Your task to perform on an android device: open sync settings in chrome Image 0: 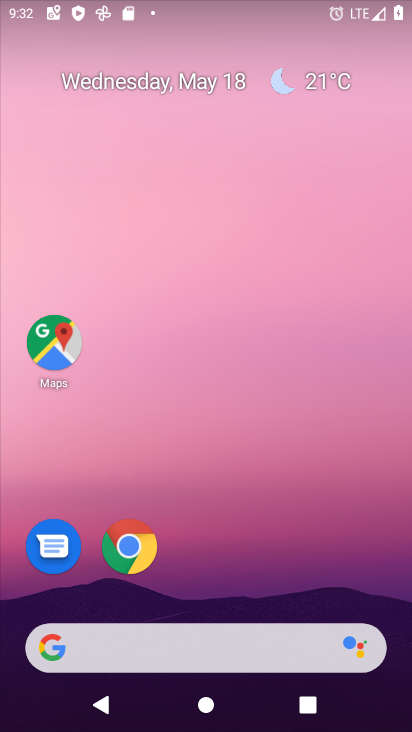
Step 0: drag from (385, 624) to (303, 35)
Your task to perform on an android device: open sync settings in chrome Image 1: 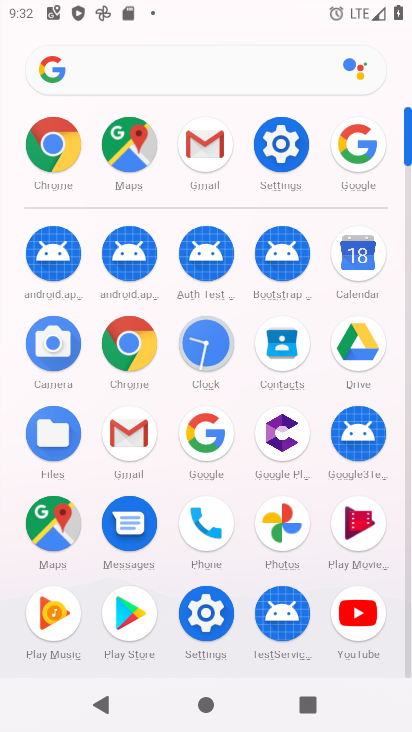
Step 1: click (39, 142)
Your task to perform on an android device: open sync settings in chrome Image 2: 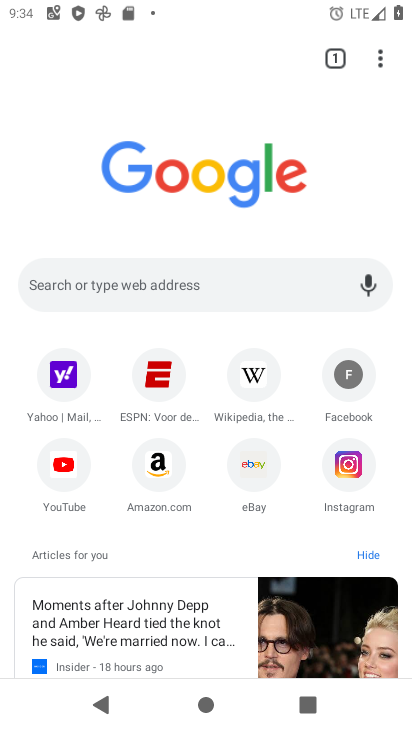
Step 2: click (377, 46)
Your task to perform on an android device: open sync settings in chrome Image 3: 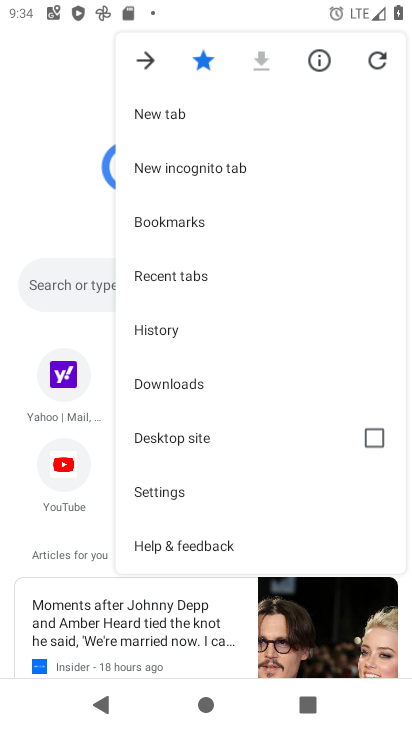
Step 3: click (211, 489)
Your task to perform on an android device: open sync settings in chrome Image 4: 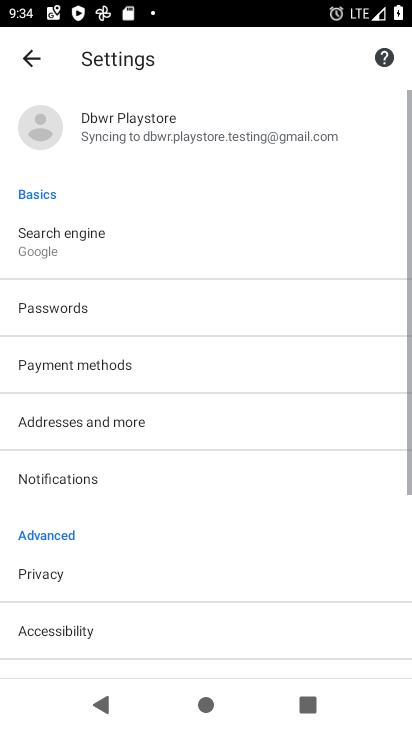
Step 4: drag from (162, 605) to (204, 205)
Your task to perform on an android device: open sync settings in chrome Image 5: 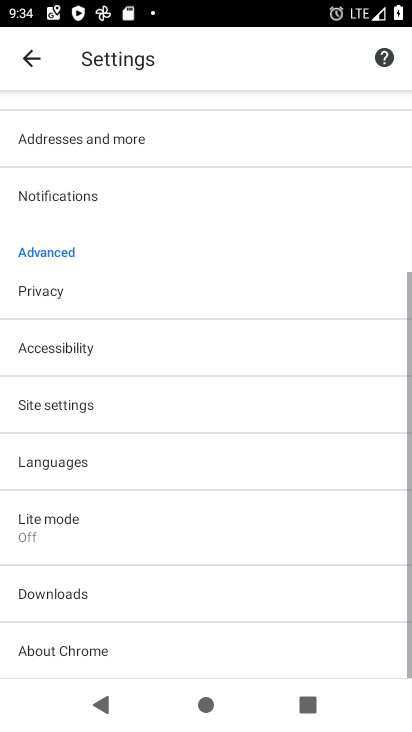
Step 5: click (129, 413)
Your task to perform on an android device: open sync settings in chrome Image 6: 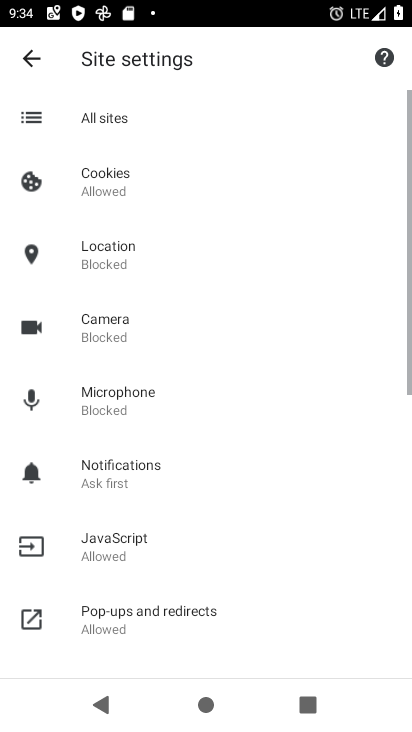
Step 6: drag from (148, 595) to (182, 165)
Your task to perform on an android device: open sync settings in chrome Image 7: 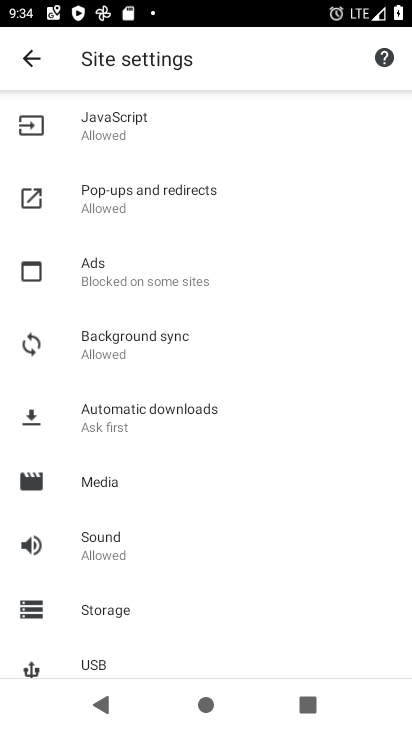
Step 7: click (148, 344)
Your task to perform on an android device: open sync settings in chrome Image 8: 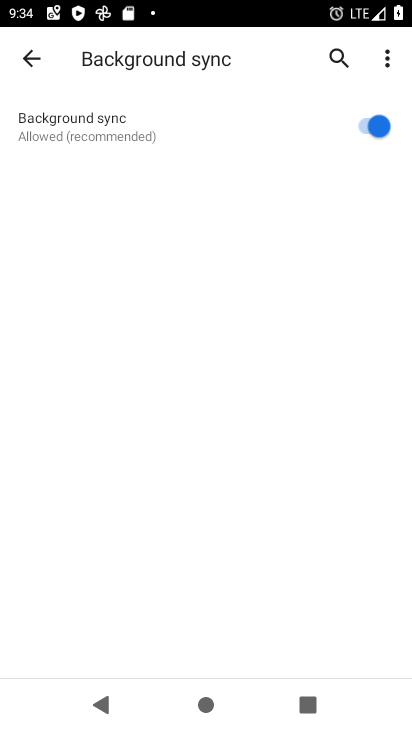
Step 8: task complete